Your task to perform on an android device: find photos in the google photos app Image 0: 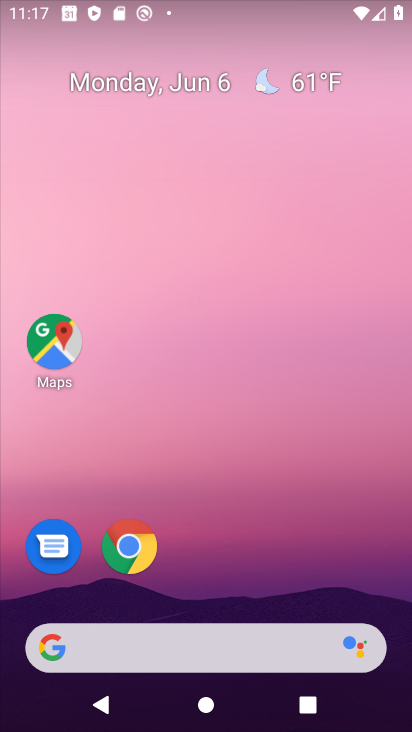
Step 0: drag from (223, 606) to (304, 6)
Your task to perform on an android device: find photos in the google photos app Image 1: 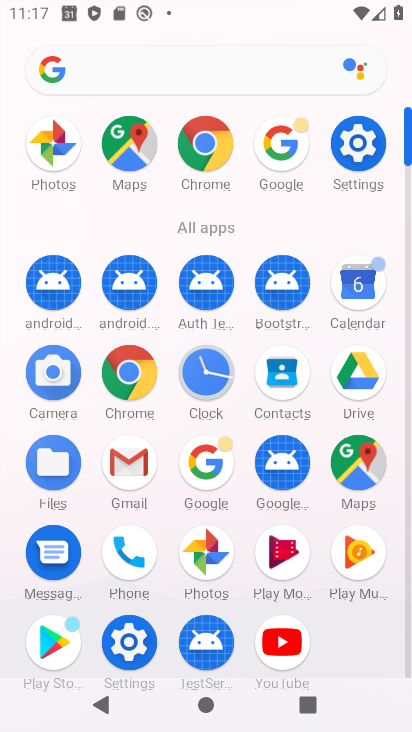
Step 1: click (198, 561)
Your task to perform on an android device: find photos in the google photos app Image 2: 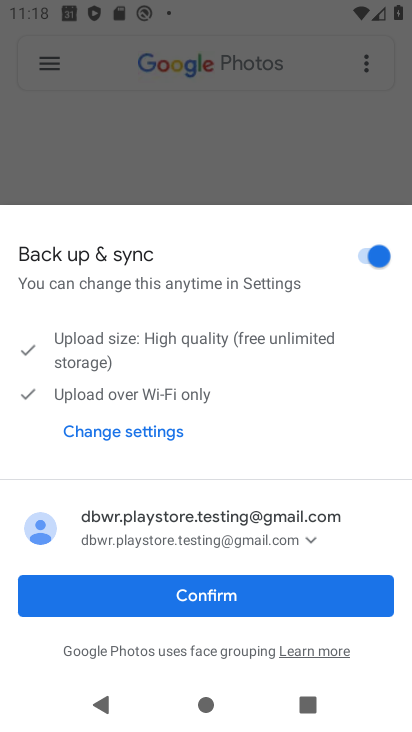
Step 2: click (188, 599)
Your task to perform on an android device: find photos in the google photos app Image 3: 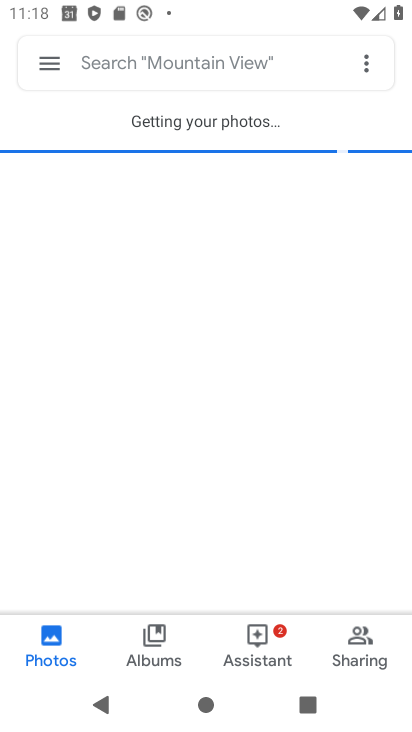
Step 3: click (48, 640)
Your task to perform on an android device: find photos in the google photos app Image 4: 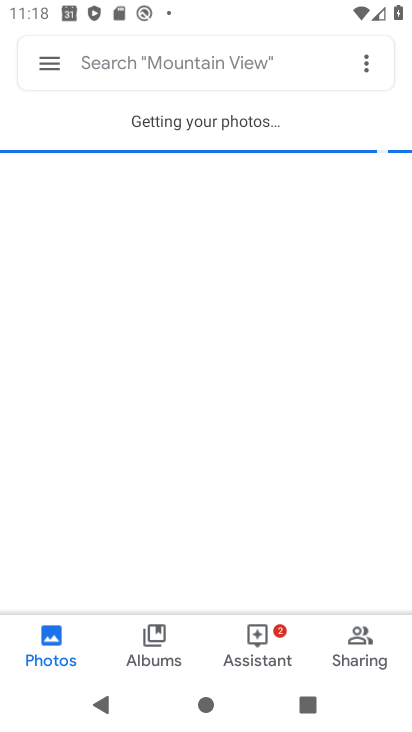
Step 4: task complete